Your task to perform on an android device: snooze an email in the gmail app Image 0: 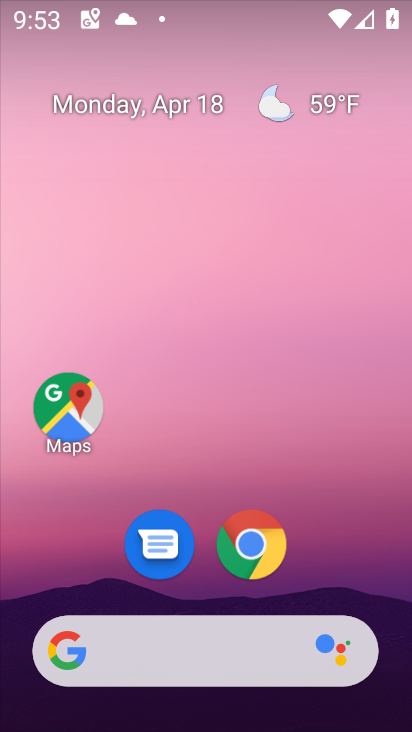
Step 0: drag from (324, 243) to (323, 201)
Your task to perform on an android device: snooze an email in the gmail app Image 1: 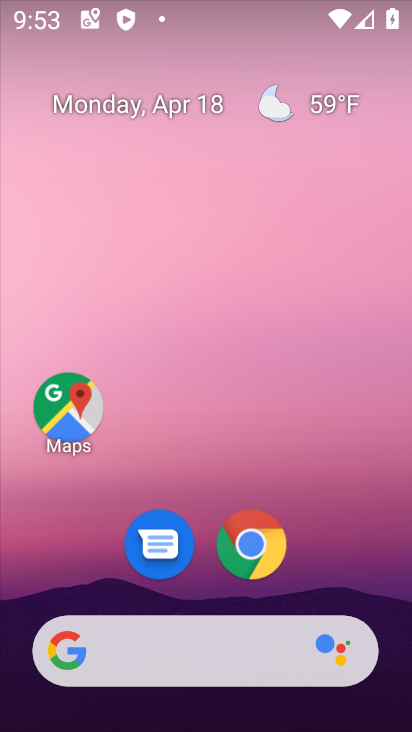
Step 1: drag from (343, 439) to (343, 262)
Your task to perform on an android device: snooze an email in the gmail app Image 2: 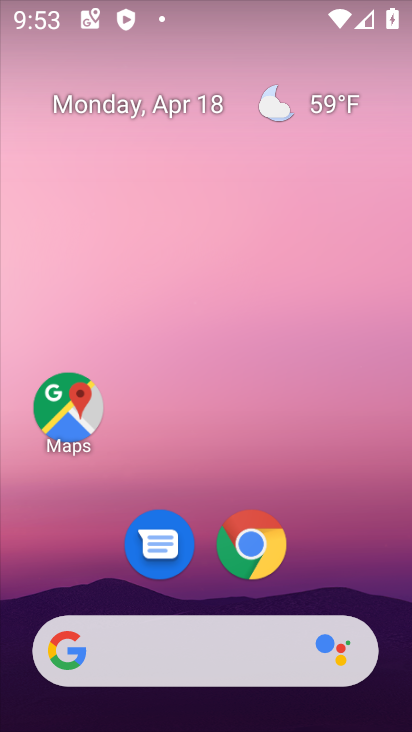
Step 2: drag from (313, 488) to (387, 102)
Your task to perform on an android device: snooze an email in the gmail app Image 3: 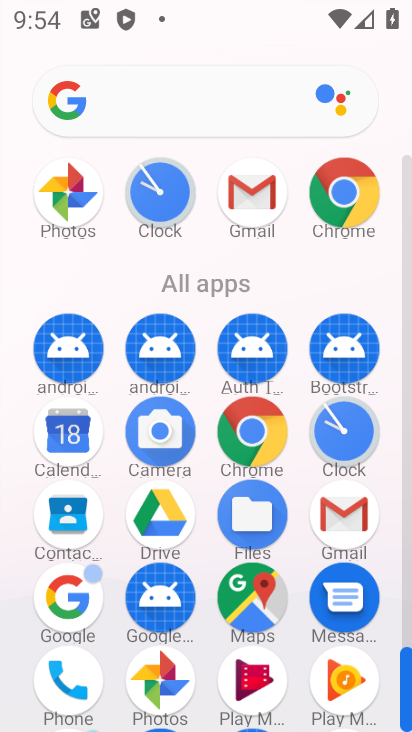
Step 3: click (370, 516)
Your task to perform on an android device: snooze an email in the gmail app Image 4: 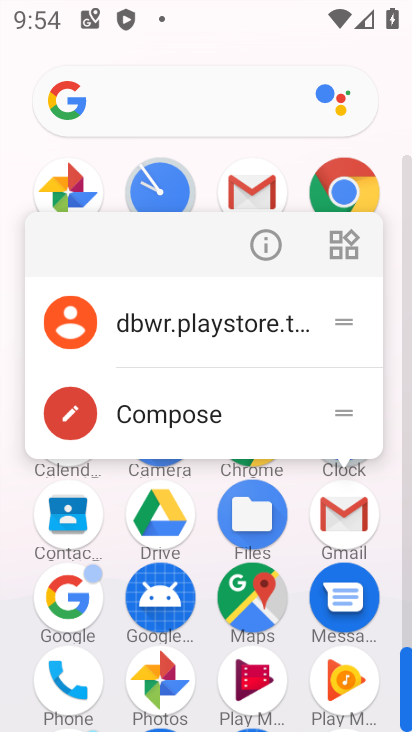
Step 4: click (349, 522)
Your task to perform on an android device: snooze an email in the gmail app Image 5: 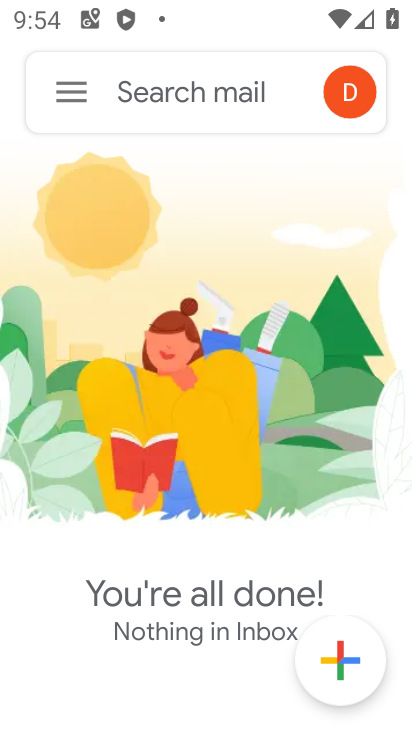
Step 5: click (68, 103)
Your task to perform on an android device: snooze an email in the gmail app Image 6: 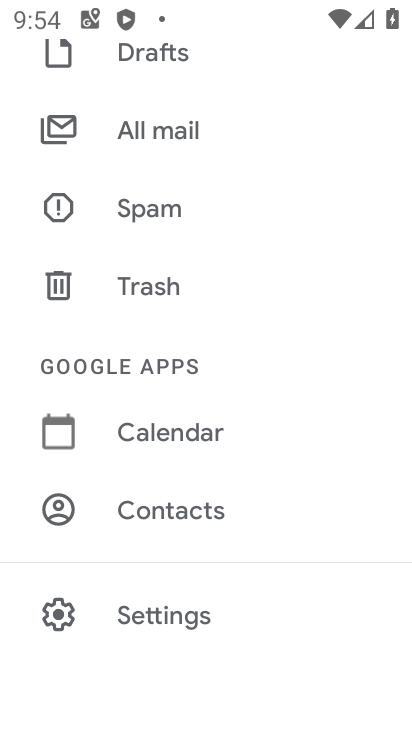
Step 6: drag from (179, 162) to (205, 643)
Your task to perform on an android device: snooze an email in the gmail app Image 7: 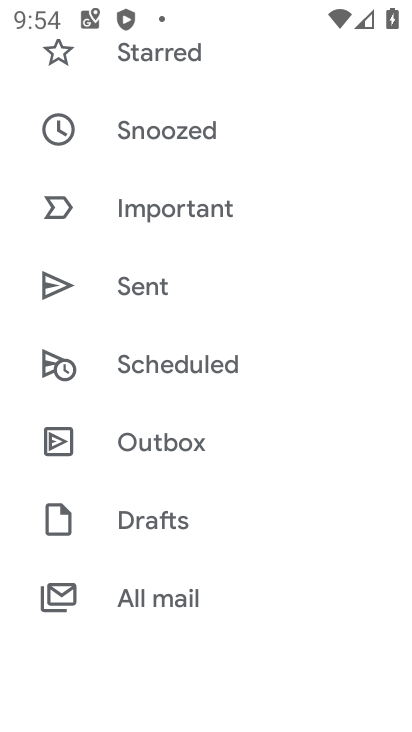
Step 7: click (165, 134)
Your task to perform on an android device: snooze an email in the gmail app Image 8: 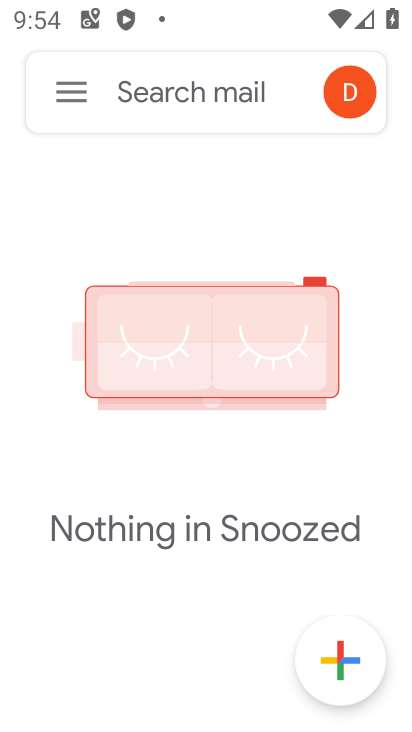
Step 8: task complete